Your task to perform on an android device: create a new album in the google photos Image 0: 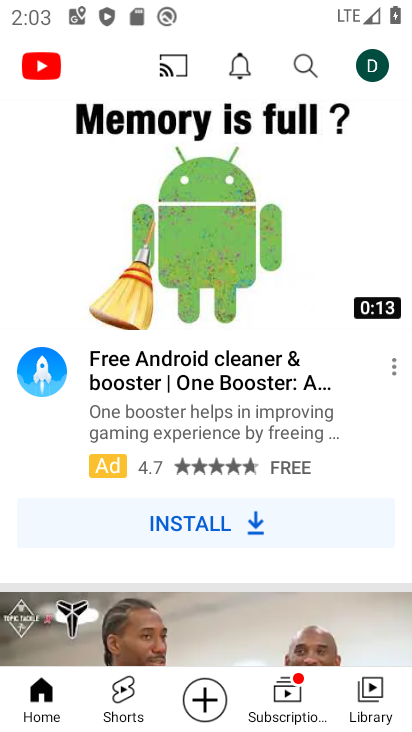
Step 0: press home button
Your task to perform on an android device: create a new album in the google photos Image 1: 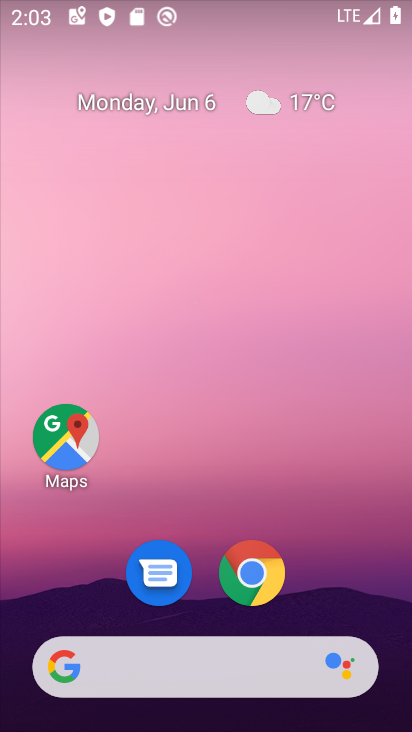
Step 1: drag from (382, 593) to (379, 298)
Your task to perform on an android device: create a new album in the google photos Image 2: 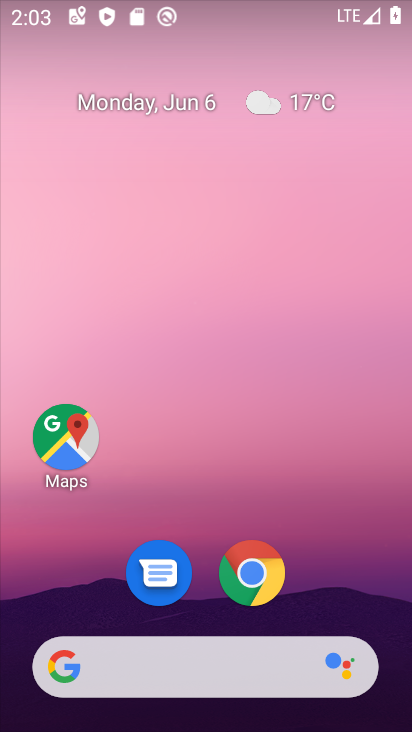
Step 2: drag from (358, 588) to (377, 29)
Your task to perform on an android device: create a new album in the google photos Image 3: 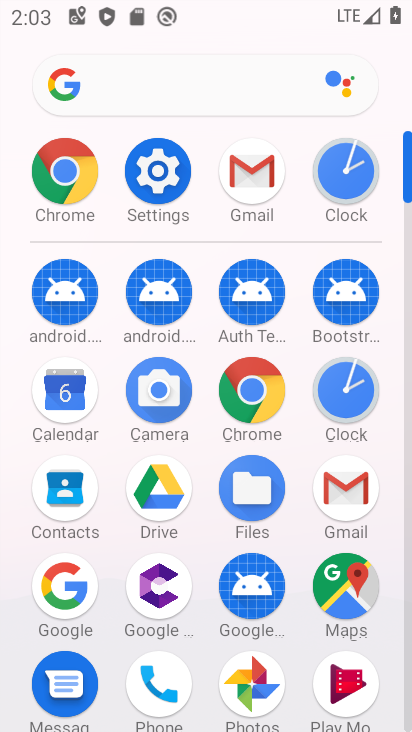
Step 3: drag from (281, 641) to (284, 472)
Your task to perform on an android device: create a new album in the google photos Image 4: 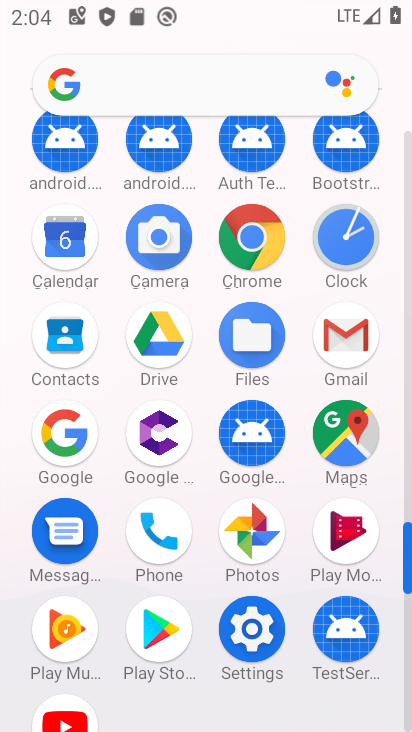
Step 4: click (249, 535)
Your task to perform on an android device: create a new album in the google photos Image 5: 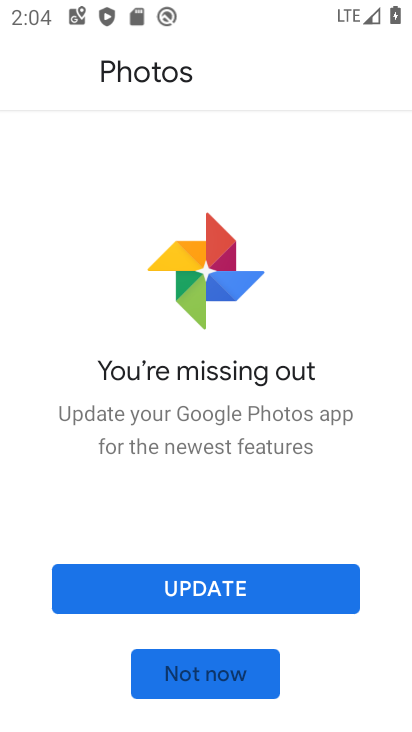
Step 5: click (260, 597)
Your task to perform on an android device: create a new album in the google photos Image 6: 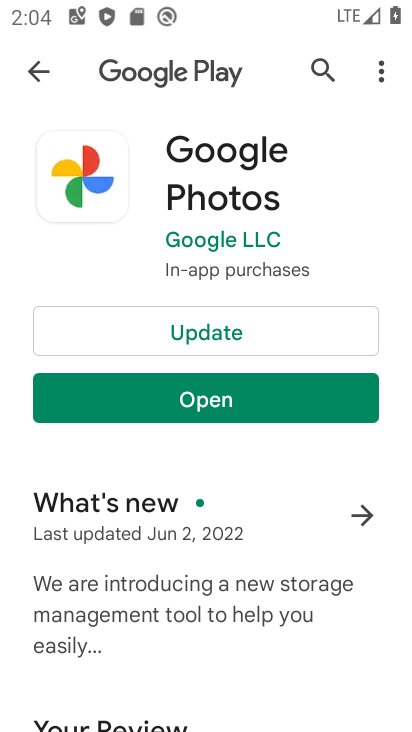
Step 6: click (233, 333)
Your task to perform on an android device: create a new album in the google photos Image 7: 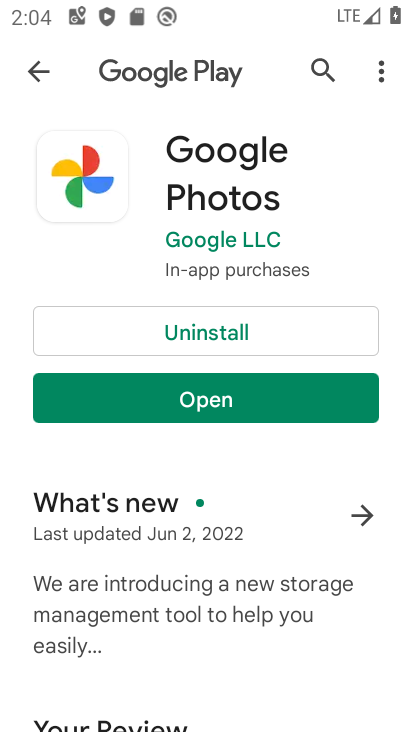
Step 7: click (220, 399)
Your task to perform on an android device: create a new album in the google photos Image 8: 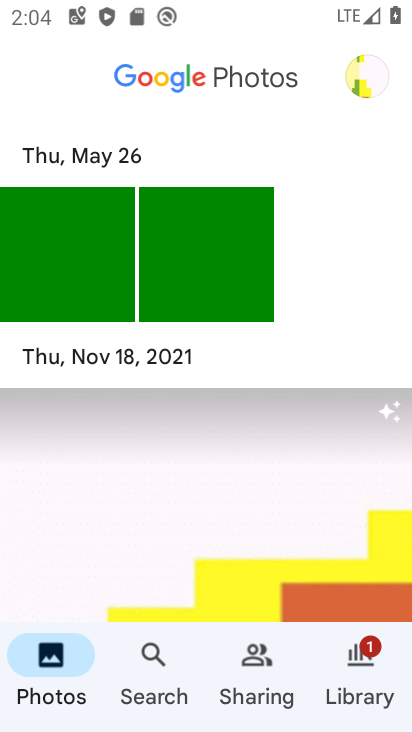
Step 8: click (352, 667)
Your task to perform on an android device: create a new album in the google photos Image 9: 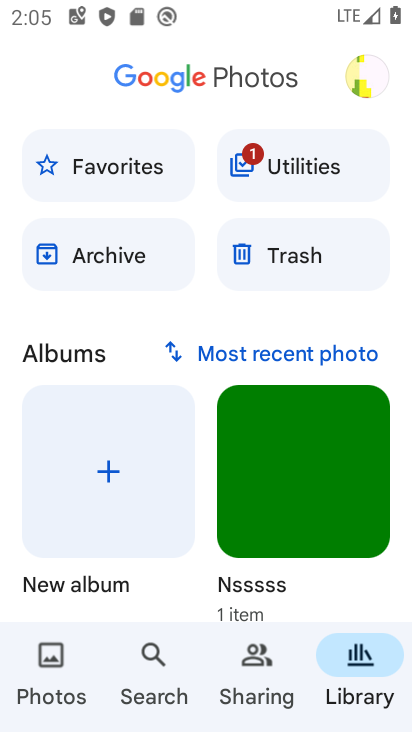
Step 9: click (79, 455)
Your task to perform on an android device: create a new album in the google photos Image 10: 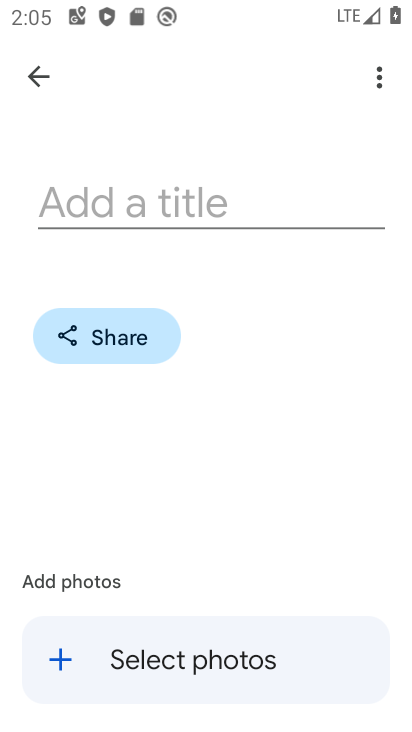
Step 10: click (164, 205)
Your task to perform on an android device: create a new album in the google photos Image 11: 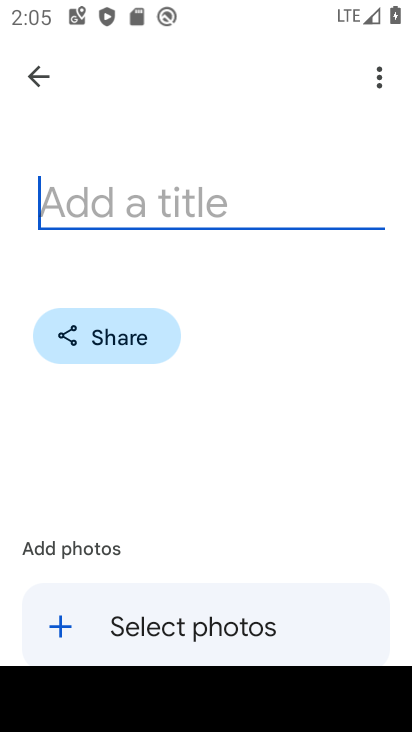
Step 11: type "gav"
Your task to perform on an android device: create a new album in the google photos Image 12: 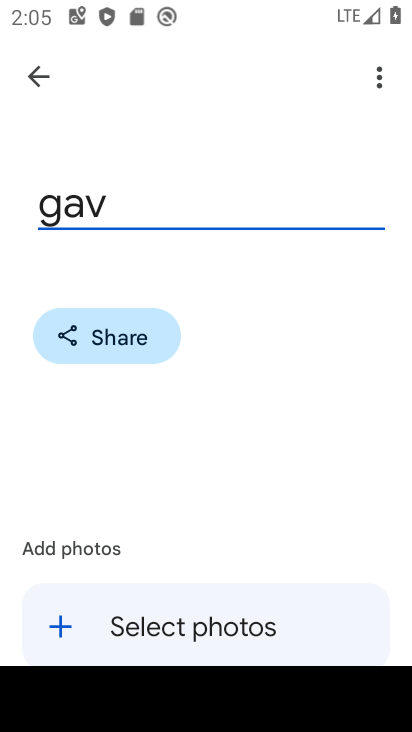
Step 12: click (197, 641)
Your task to perform on an android device: create a new album in the google photos Image 13: 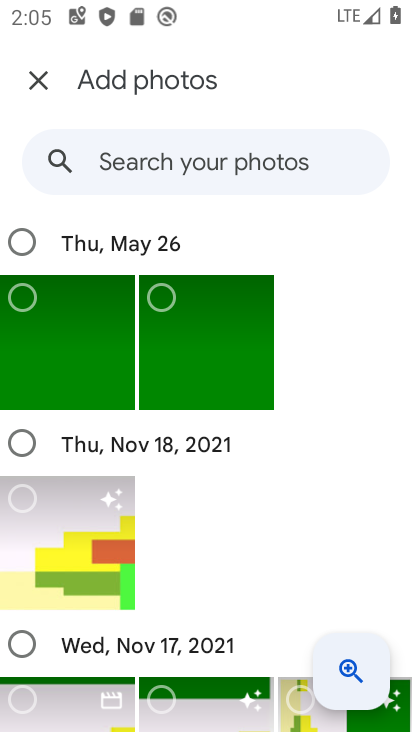
Step 13: click (27, 346)
Your task to perform on an android device: create a new album in the google photos Image 14: 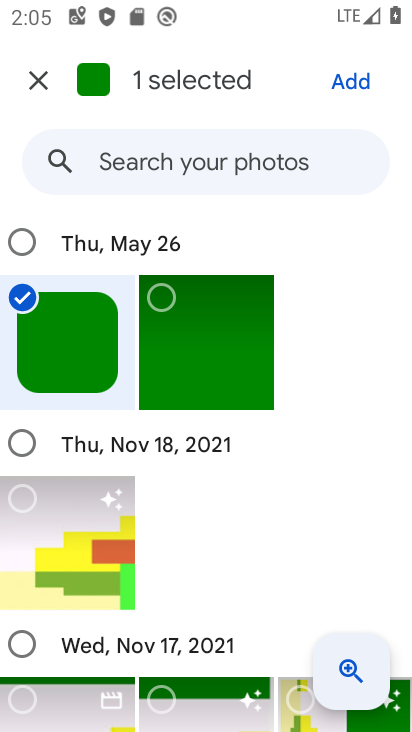
Step 14: click (196, 365)
Your task to perform on an android device: create a new album in the google photos Image 15: 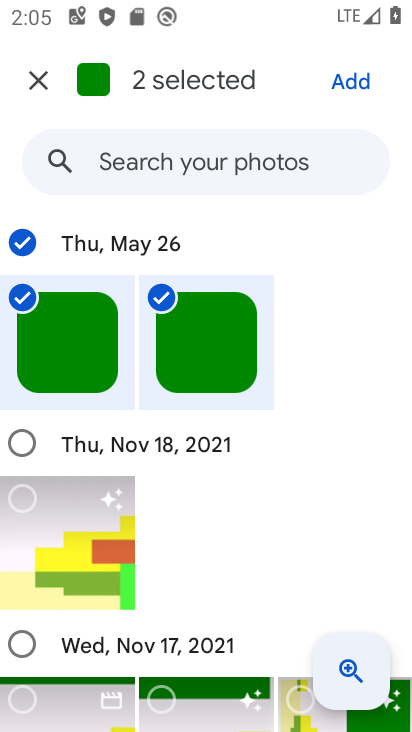
Step 15: click (366, 68)
Your task to perform on an android device: create a new album in the google photos Image 16: 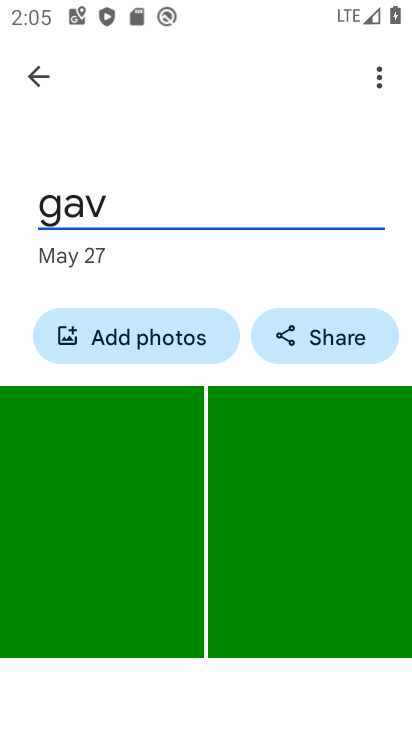
Step 16: task complete